Your task to perform on an android device: see sites visited before in the chrome app Image 0: 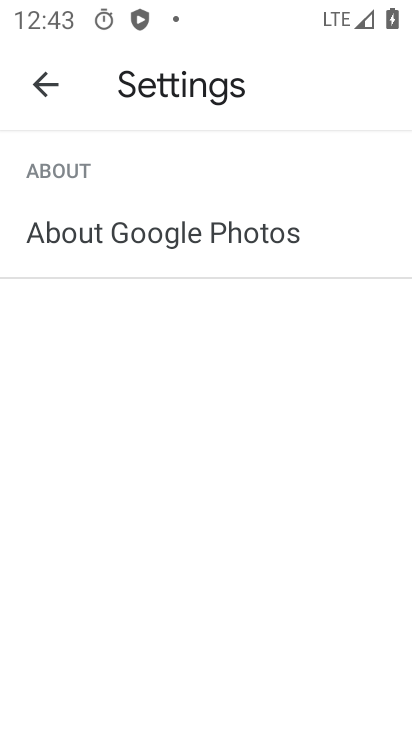
Step 0: press home button
Your task to perform on an android device: see sites visited before in the chrome app Image 1: 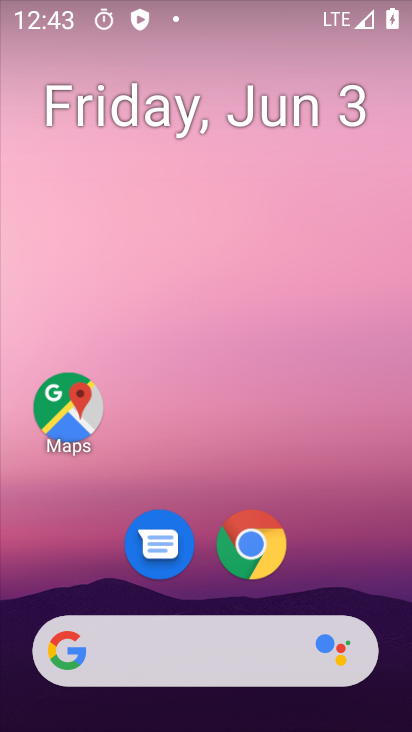
Step 1: click (237, 553)
Your task to perform on an android device: see sites visited before in the chrome app Image 2: 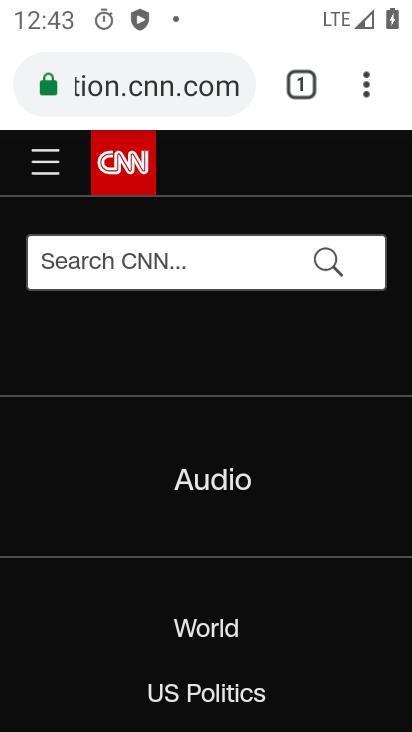
Step 2: click (373, 79)
Your task to perform on an android device: see sites visited before in the chrome app Image 3: 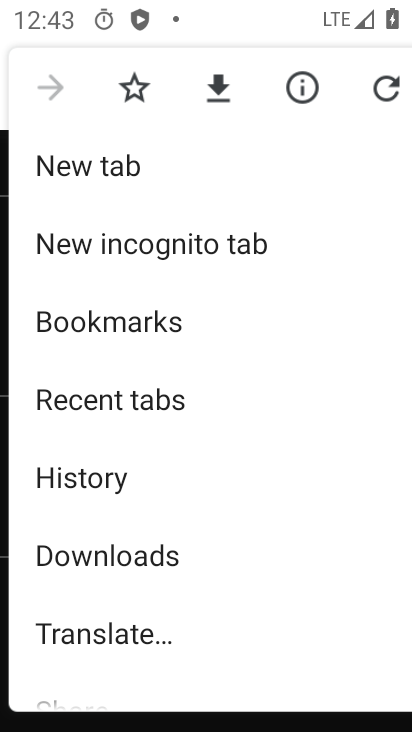
Step 3: click (115, 476)
Your task to perform on an android device: see sites visited before in the chrome app Image 4: 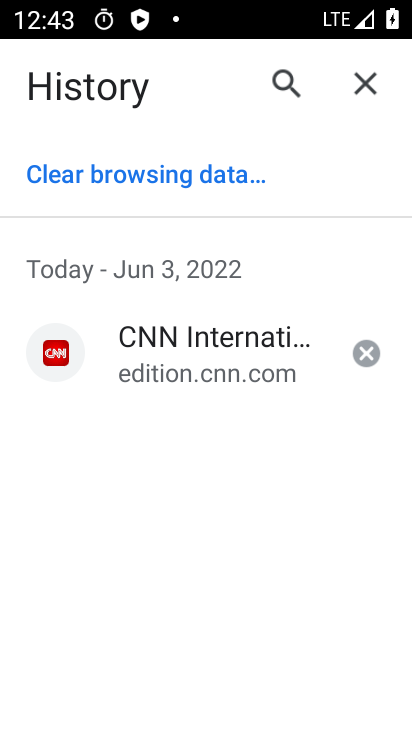
Step 4: task complete